Your task to perform on an android device: Search for the most popular books on Goodreads Image 0: 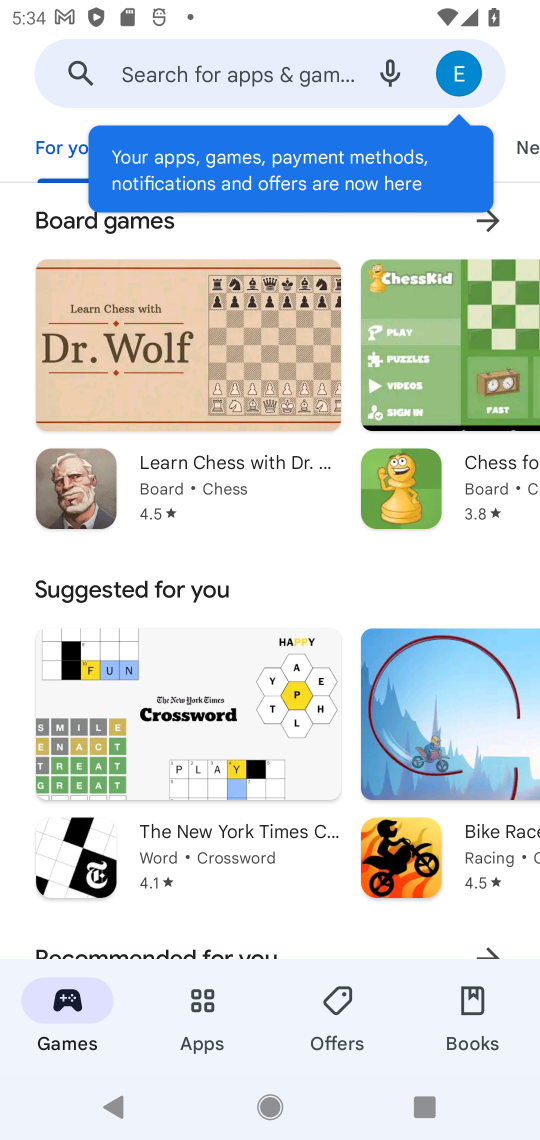
Step 0: press home button
Your task to perform on an android device: Search for the most popular books on Goodreads Image 1: 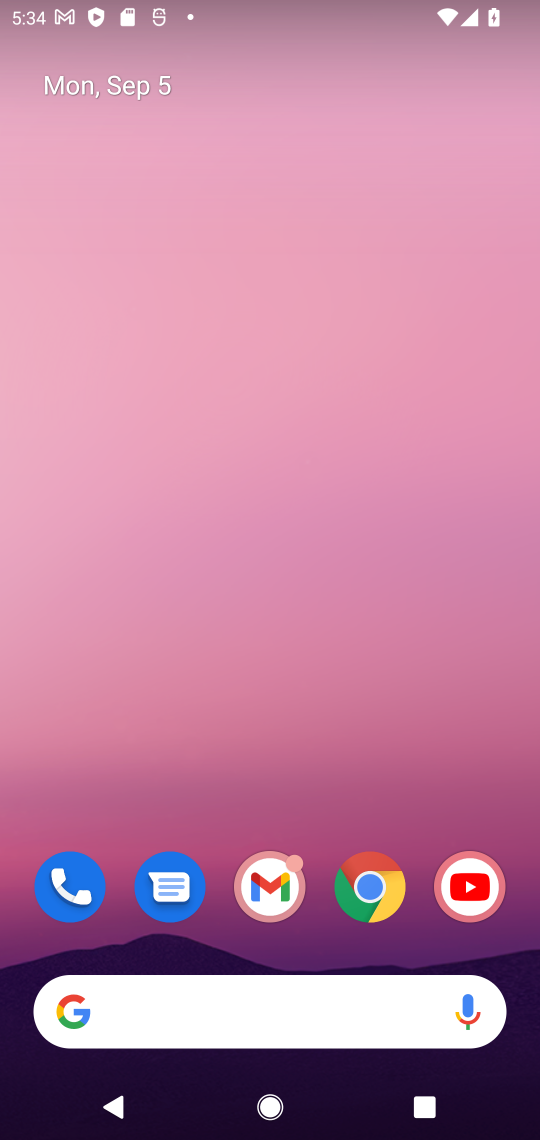
Step 1: drag from (315, 827) to (291, 231)
Your task to perform on an android device: Search for the most popular books on Goodreads Image 2: 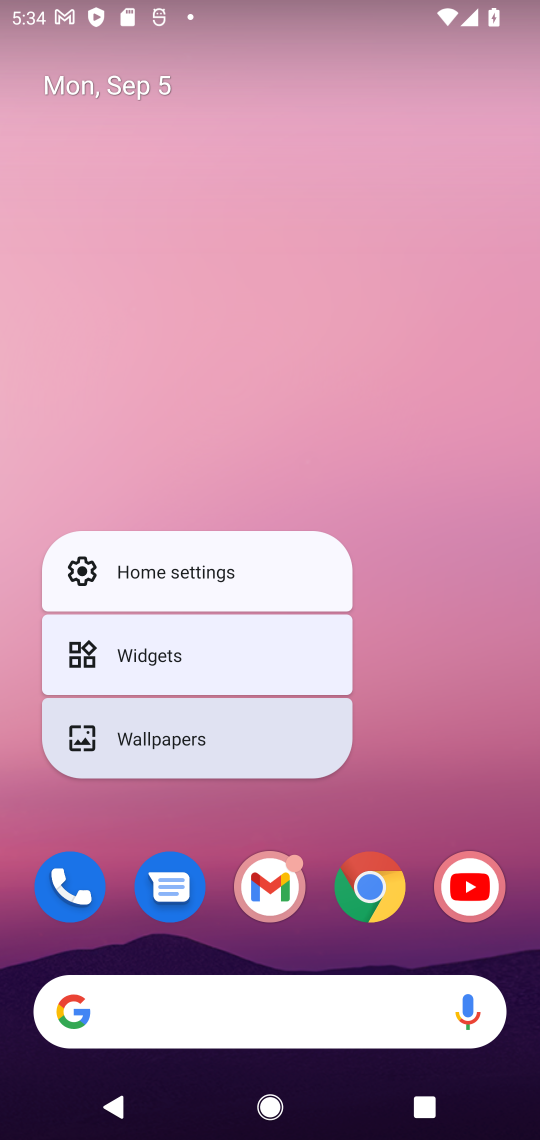
Step 2: click (396, 599)
Your task to perform on an android device: Search for the most popular books on Goodreads Image 3: 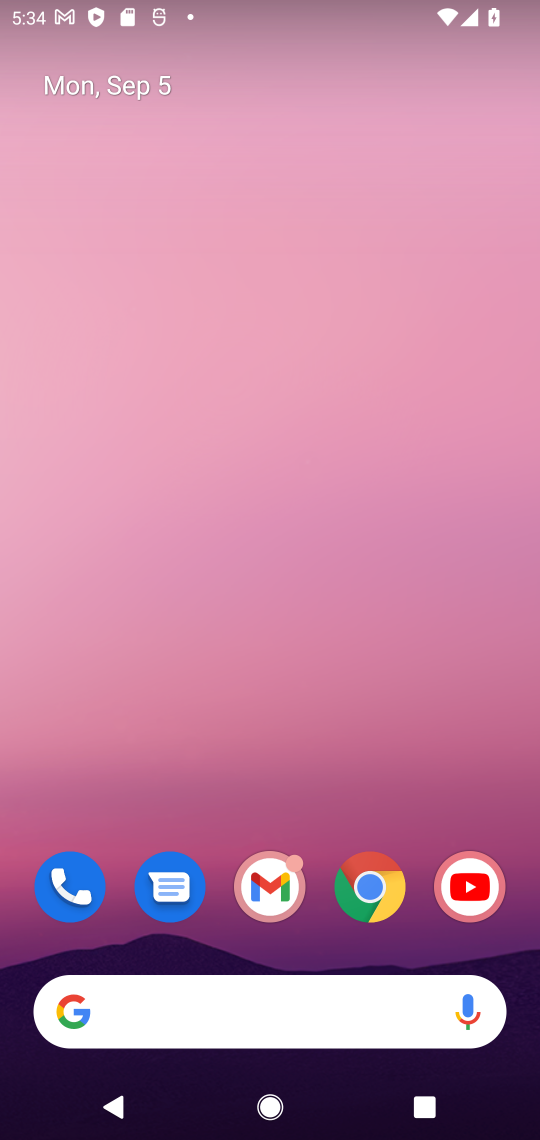
Step 3: drag from (335, 834) to (313, 83)
Your task to perform on an android device: Search for the most popular books on Goodreads Image 4: 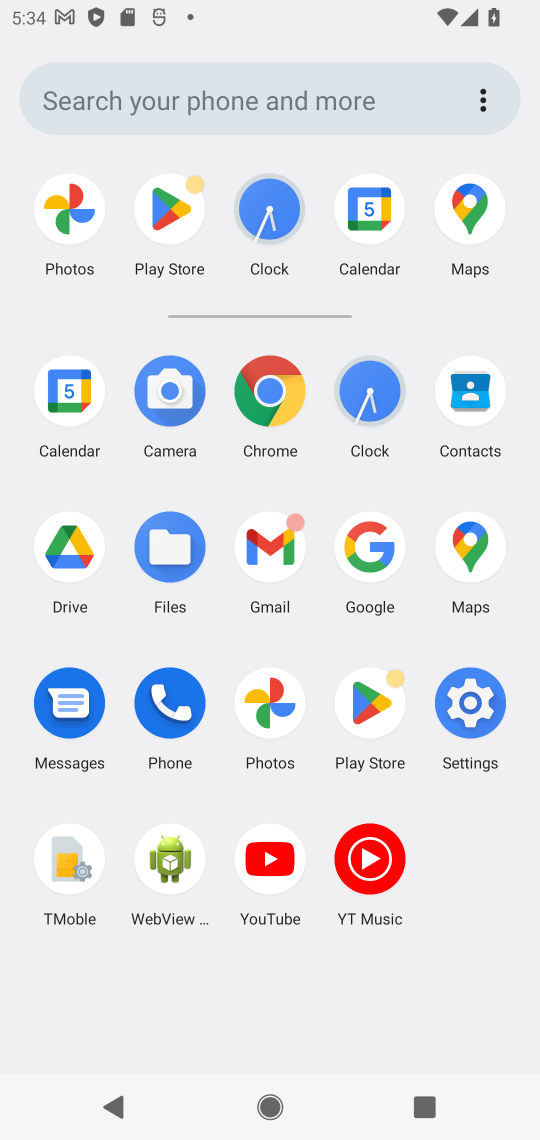
Step 4: click (262, 392)
Your task to perform on an android device: Search for the most popular books on Goodreads Image 5: 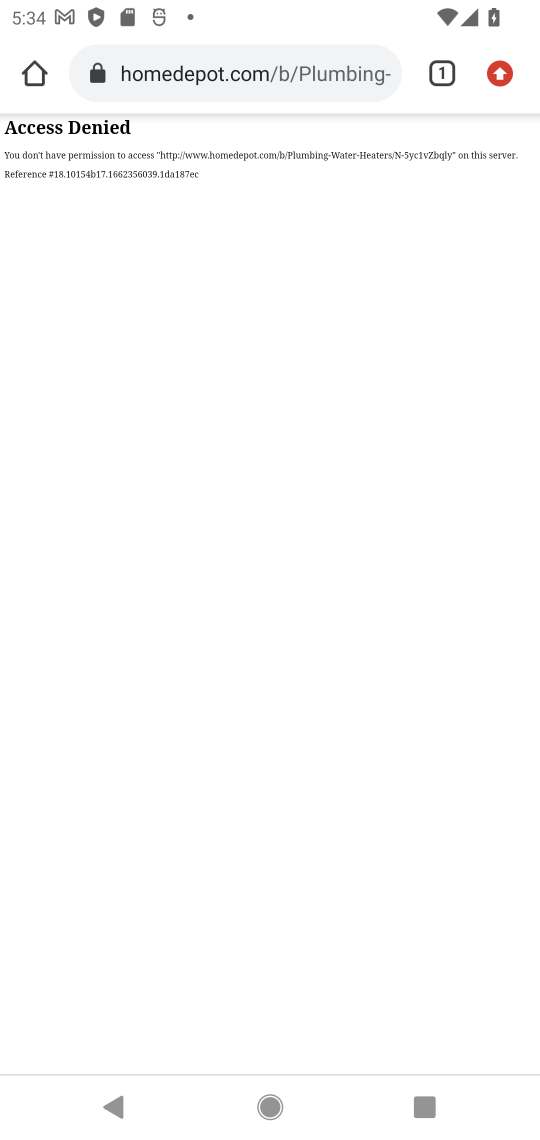
Step 5: click (266, 61)
Your task to perform on an android device: Search for the most popular books on Goodreads Image 6: 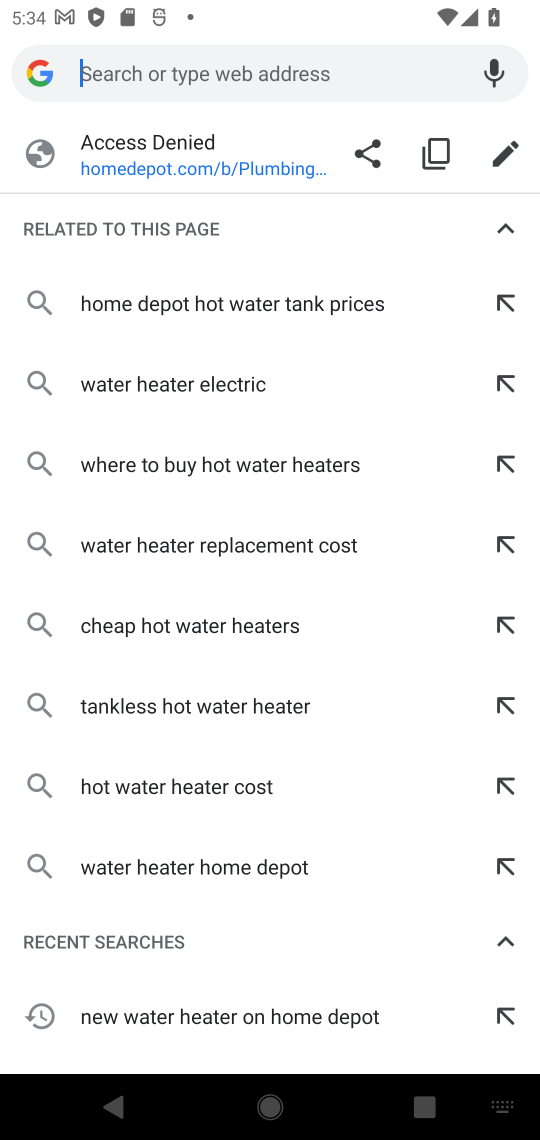
Step 6: type "most popular books on Goodreads"
Your task to perform on an android device: Search for the most popular books on Goodreads Image 7: 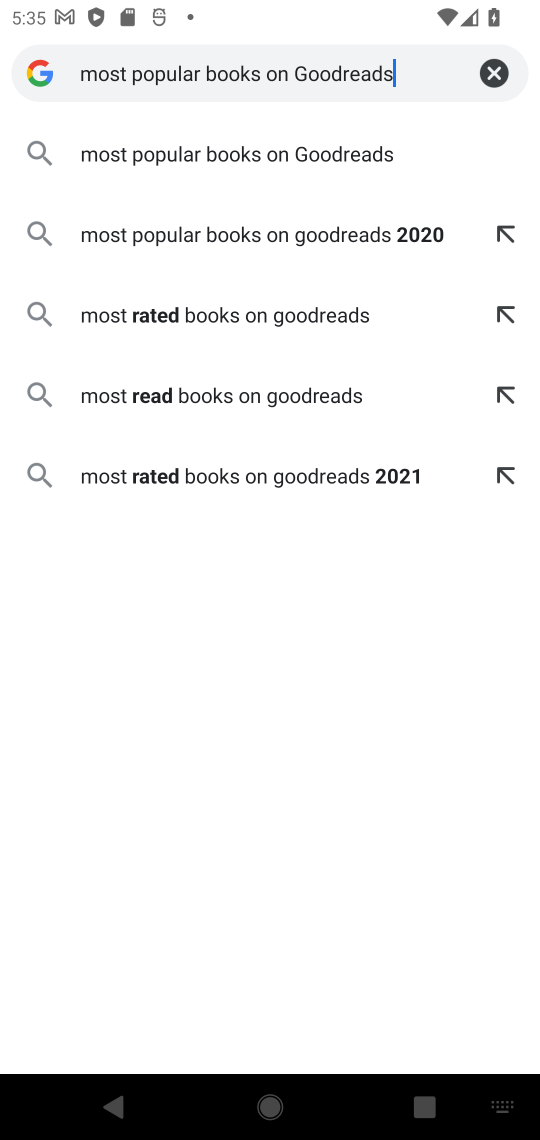
Step 7: press enter
Your task to perform on an android device: Search for the most popular books on Goodreads Image 8: 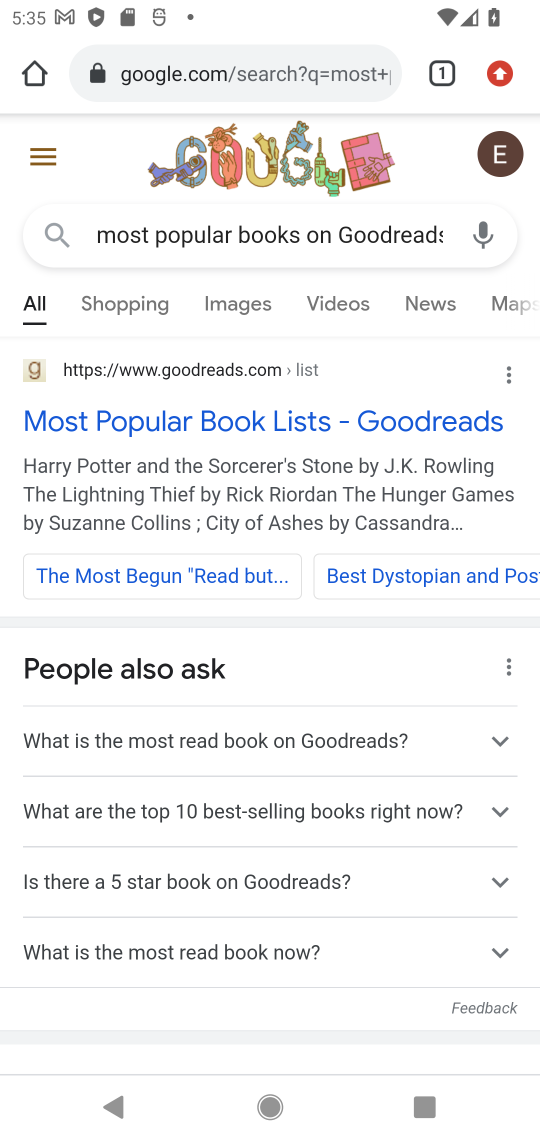
Step 8: click (301, 414)
Your task to perform on an android device: Search for the most popular books on Goodreads Image 9: 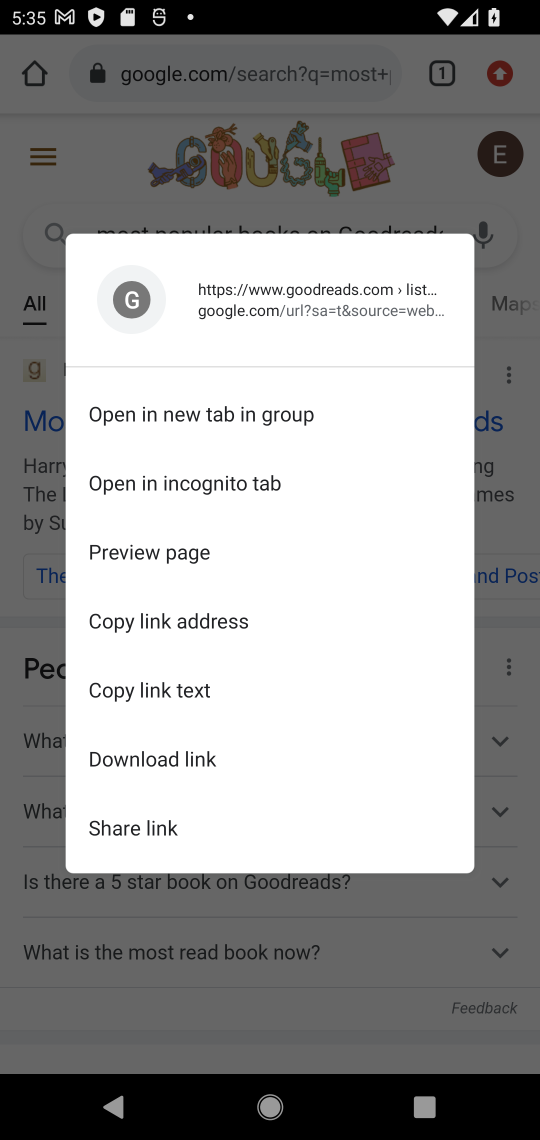
Step 9: click (506, 411)
Your task to perform on an android device: Search for the most popular books on Goodreads Image 10: 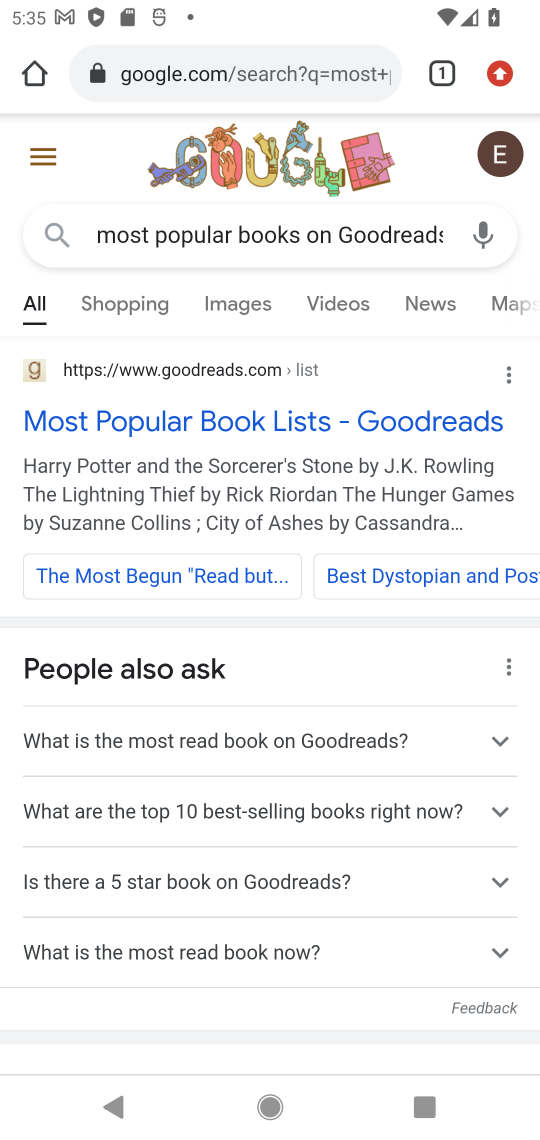
Step 10: click (221, 426)
Your task to perform on an android device: Search for the most popular books on Goodreads Image 11: 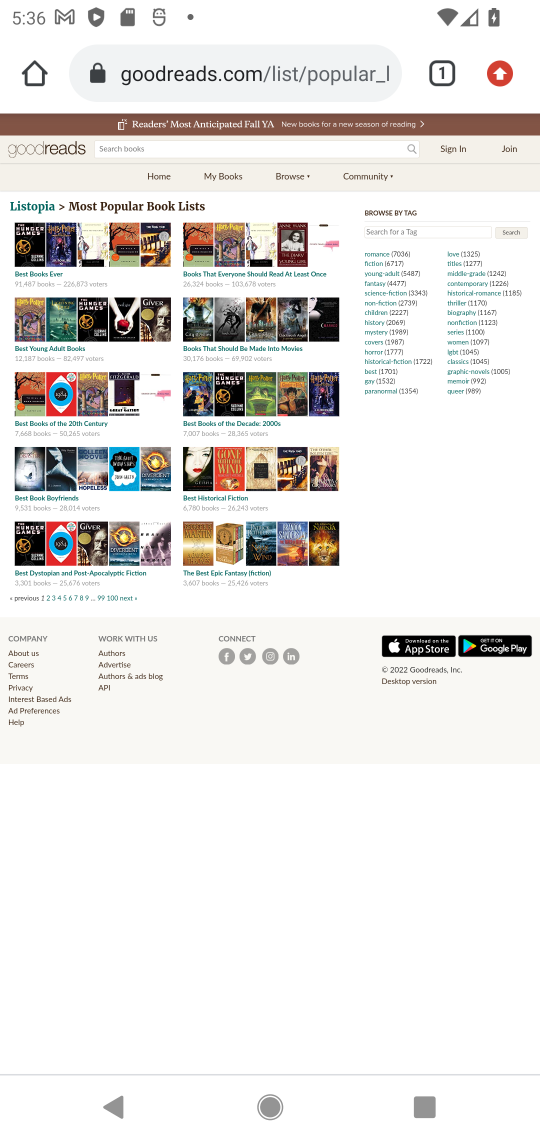
Step 11: task complete